Your task to perform on an android device: open app "Viber Messenger" (install if not already installed) Image 0: 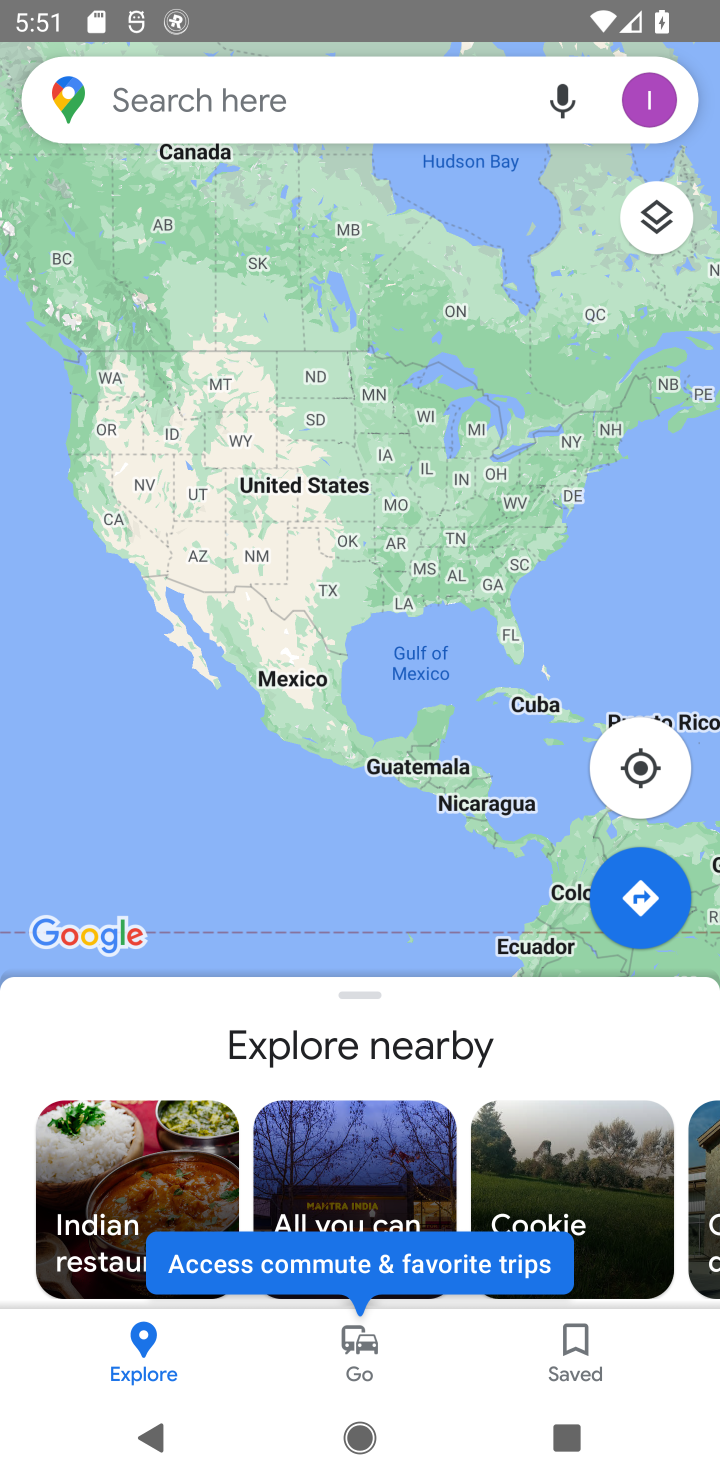
Step 0: press home button
Your task to perform on an android device: open app "Viber Messenger" (install if not already installed) Image 1: 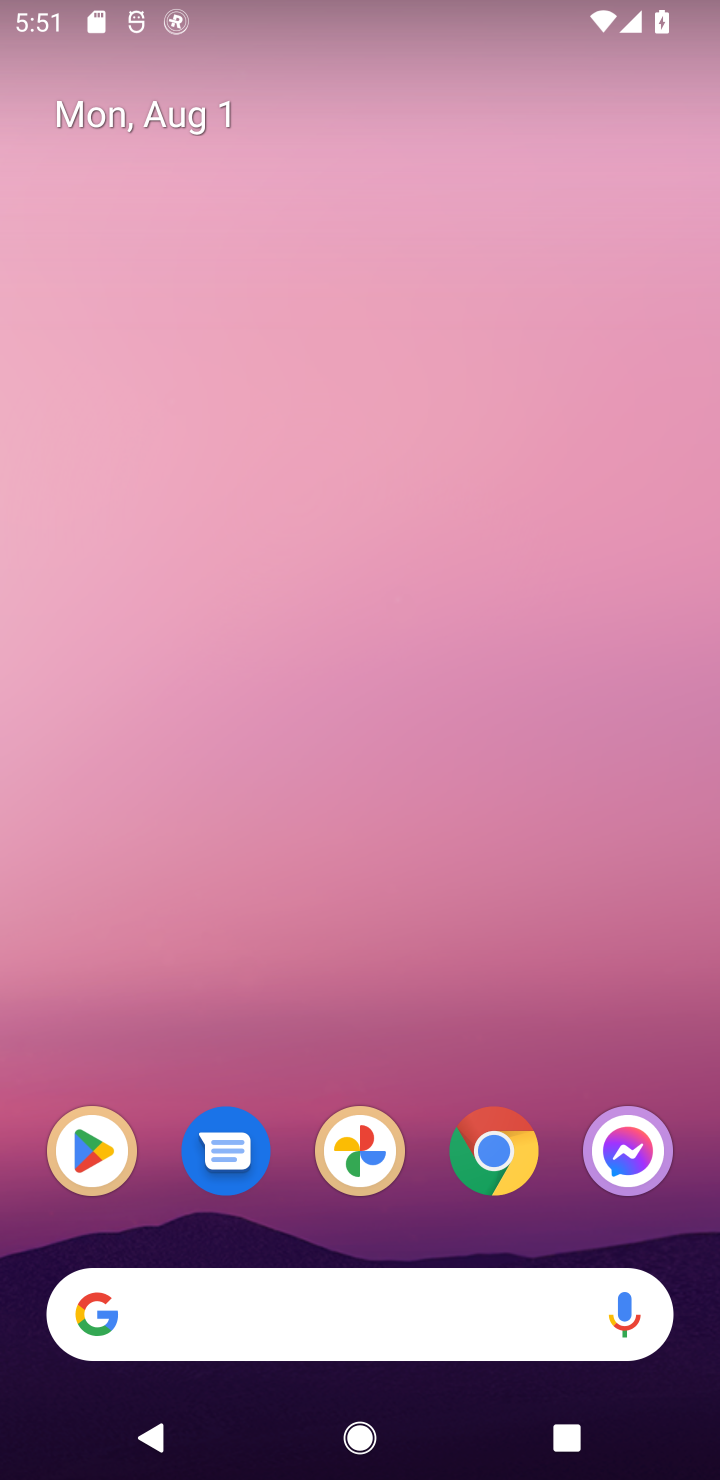
Step 1: click (101, 1139)
Your task to perform on an android device: open app "Viber Messenger" (install if not already installed) Image 2: 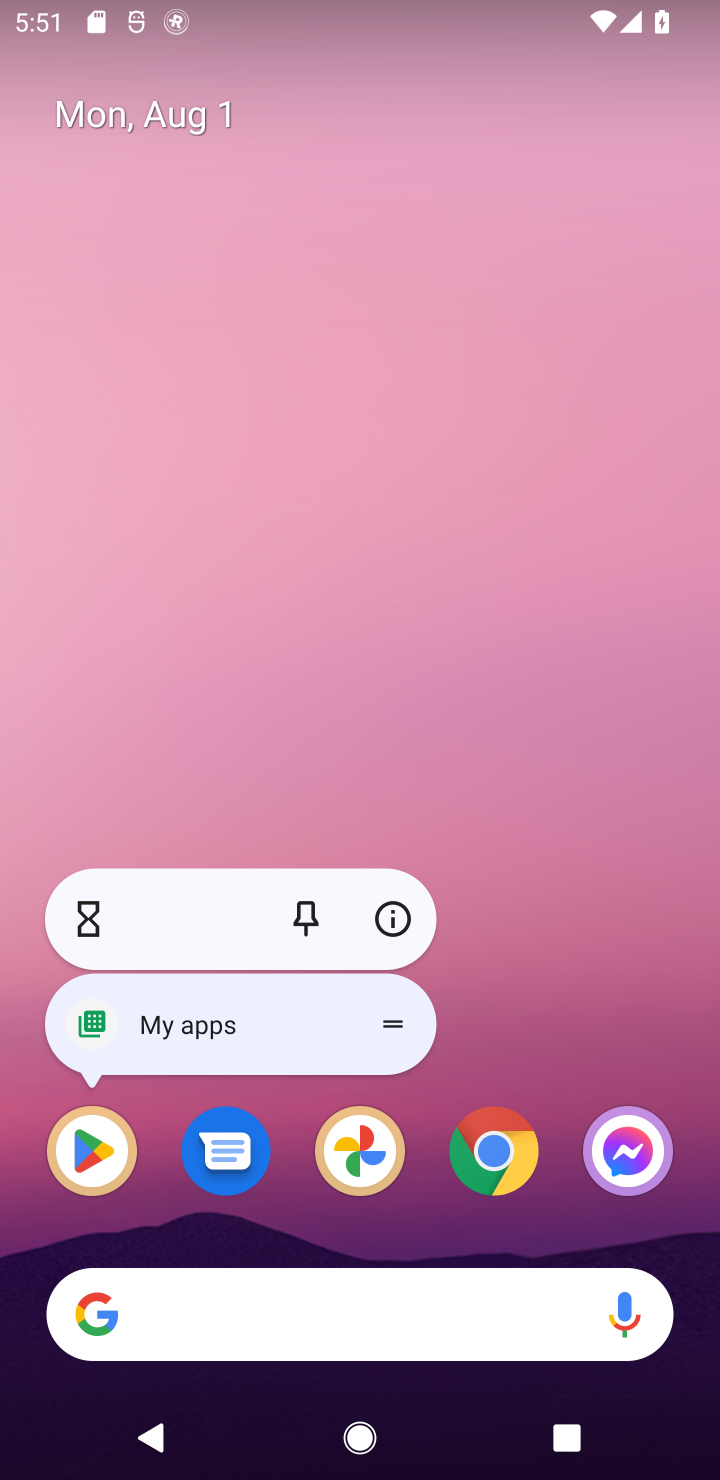
Step 2: click (96, 1154)
Your task to perform on an android device: open app "Viber Messenger" (install if not already installed) Image 3: 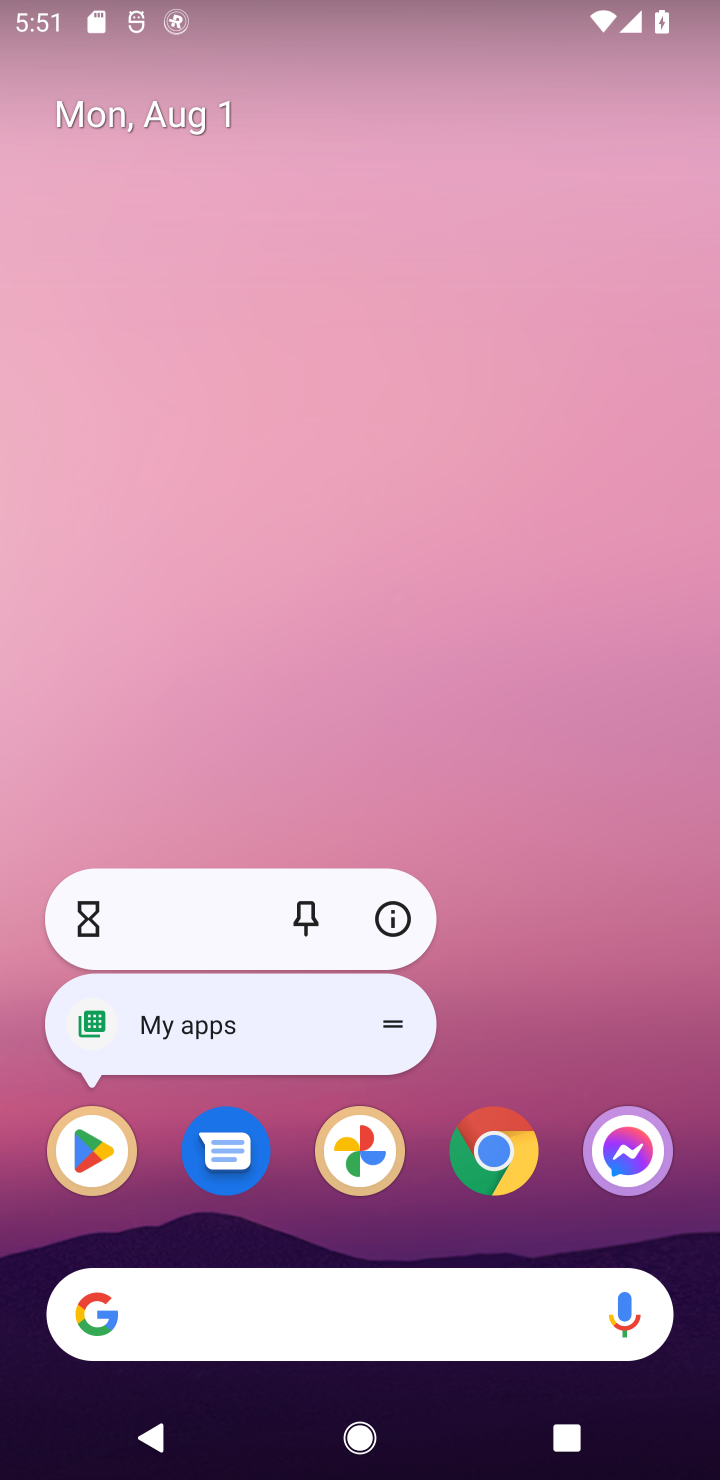
Step 3: click (96, 1154)
Your task to perform on an android device: open app "Viber Messenger" (install if not already installed) Image 4: 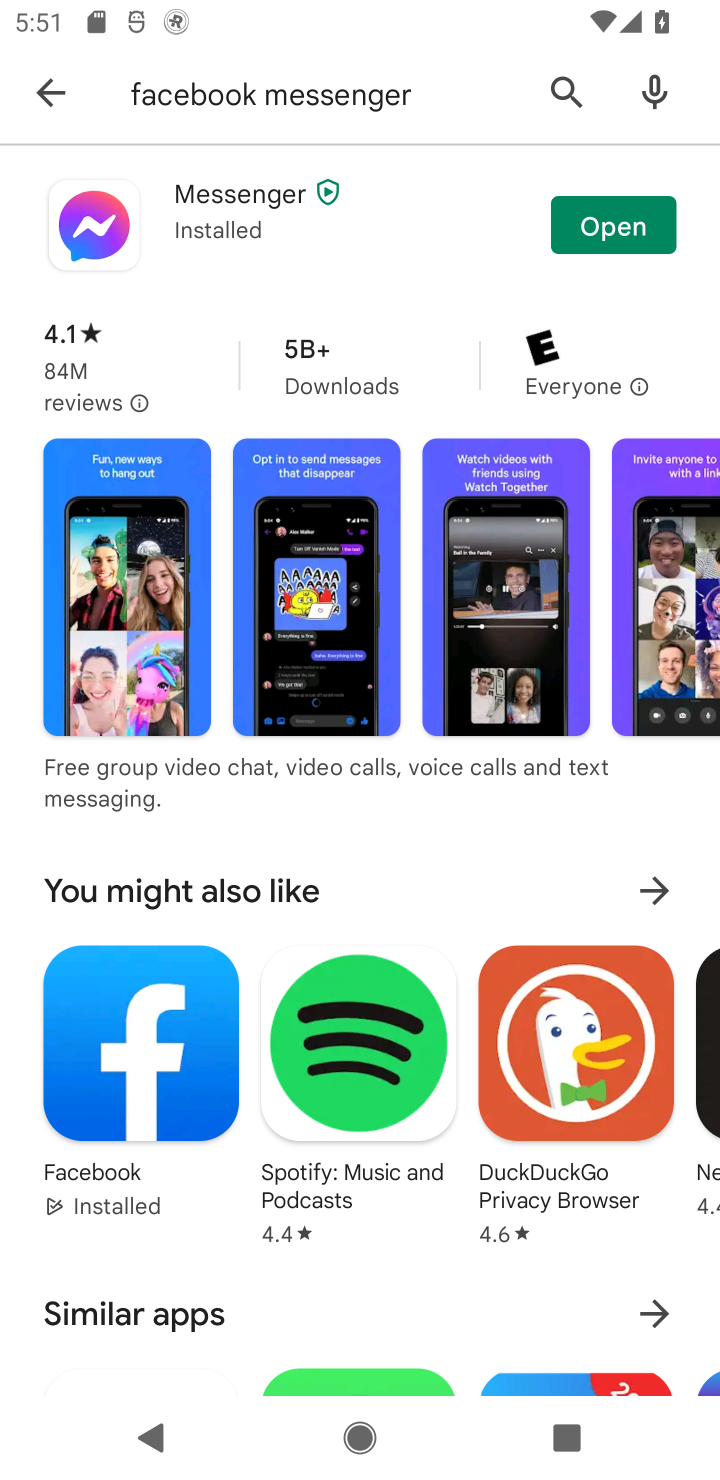
Step 4: click (574, 86)
Your task to perform on an android device: open app "Viber Messenger" (install if not already installed) Image 5: 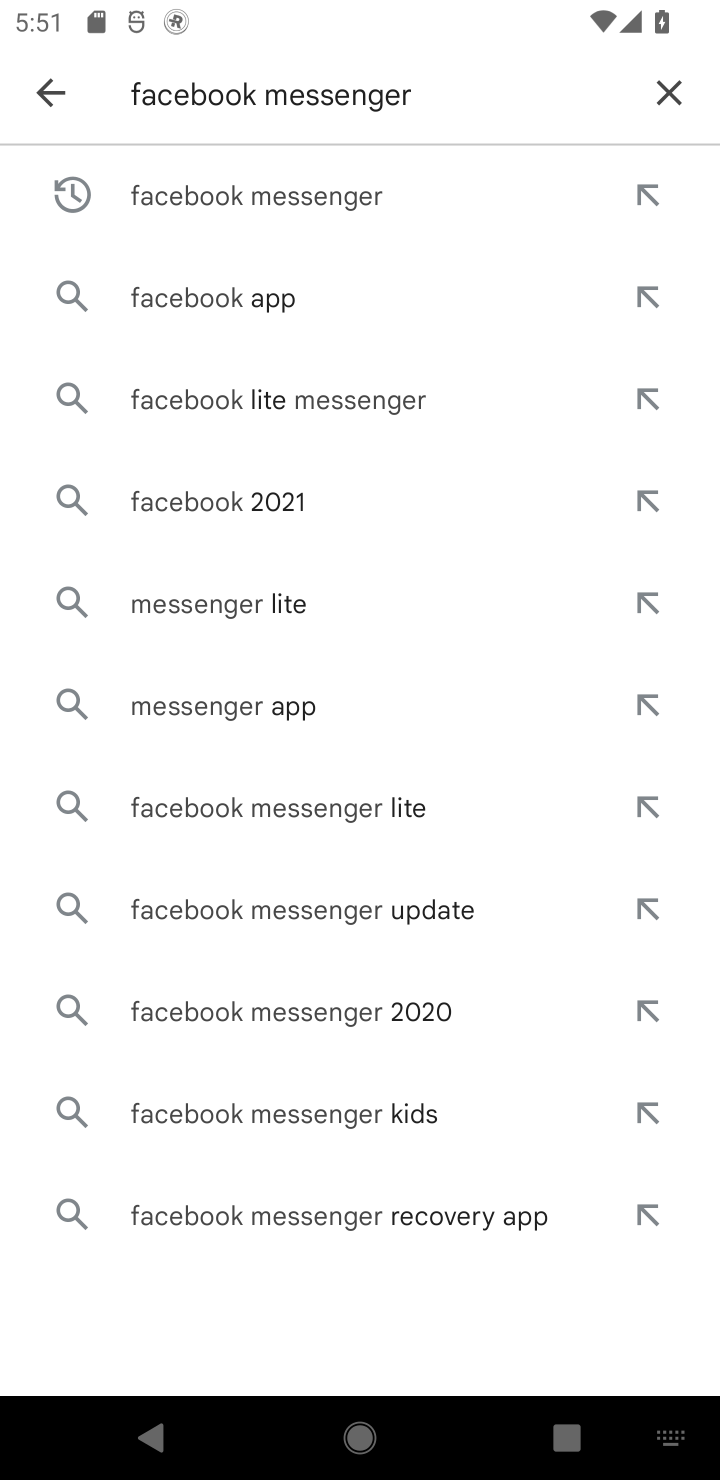
Step 5: click (666, 105)
Your task to perform on an android device: open app "Viber Messenger" (install if not already installed) Image 6: 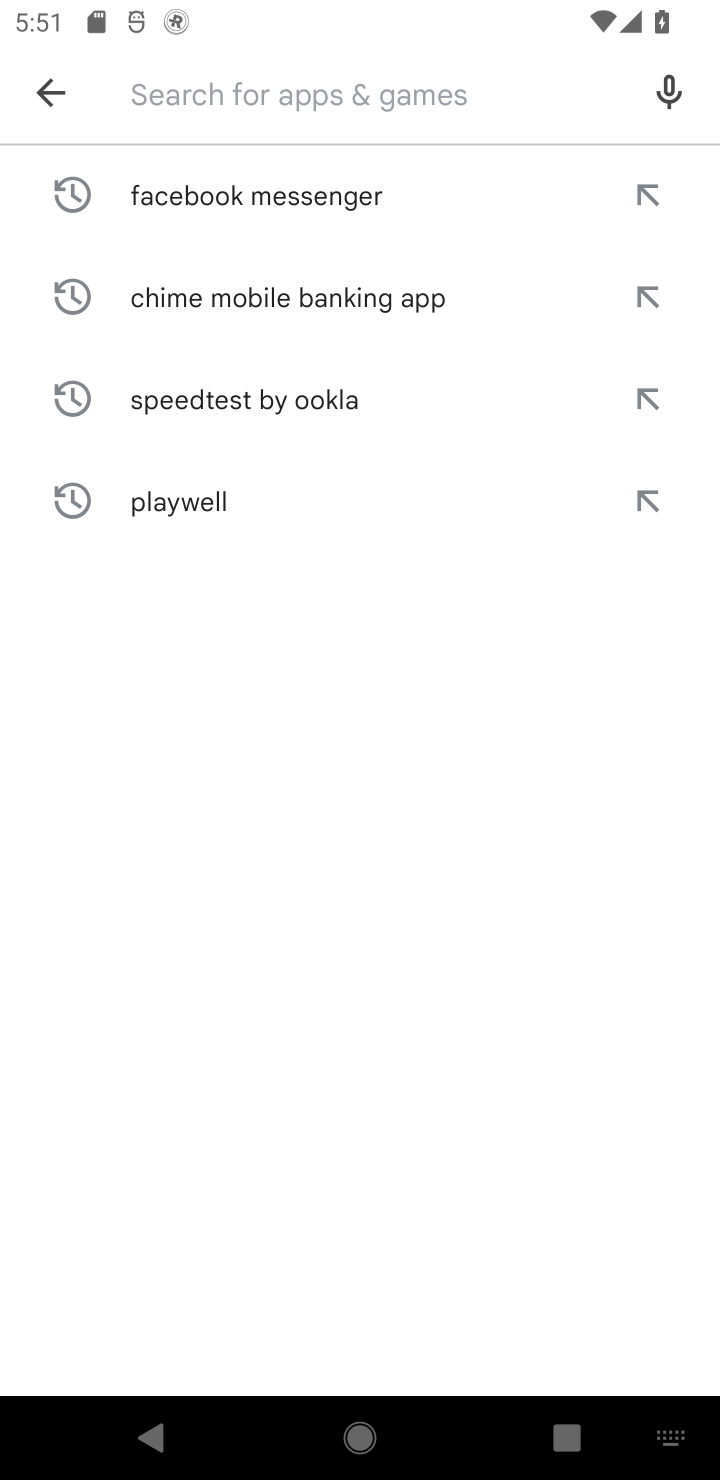
Step 6: type "Viber Messenger"
Your task to perform on an android device: open app "Viber Messenger" (install if not already installed) Image 7: 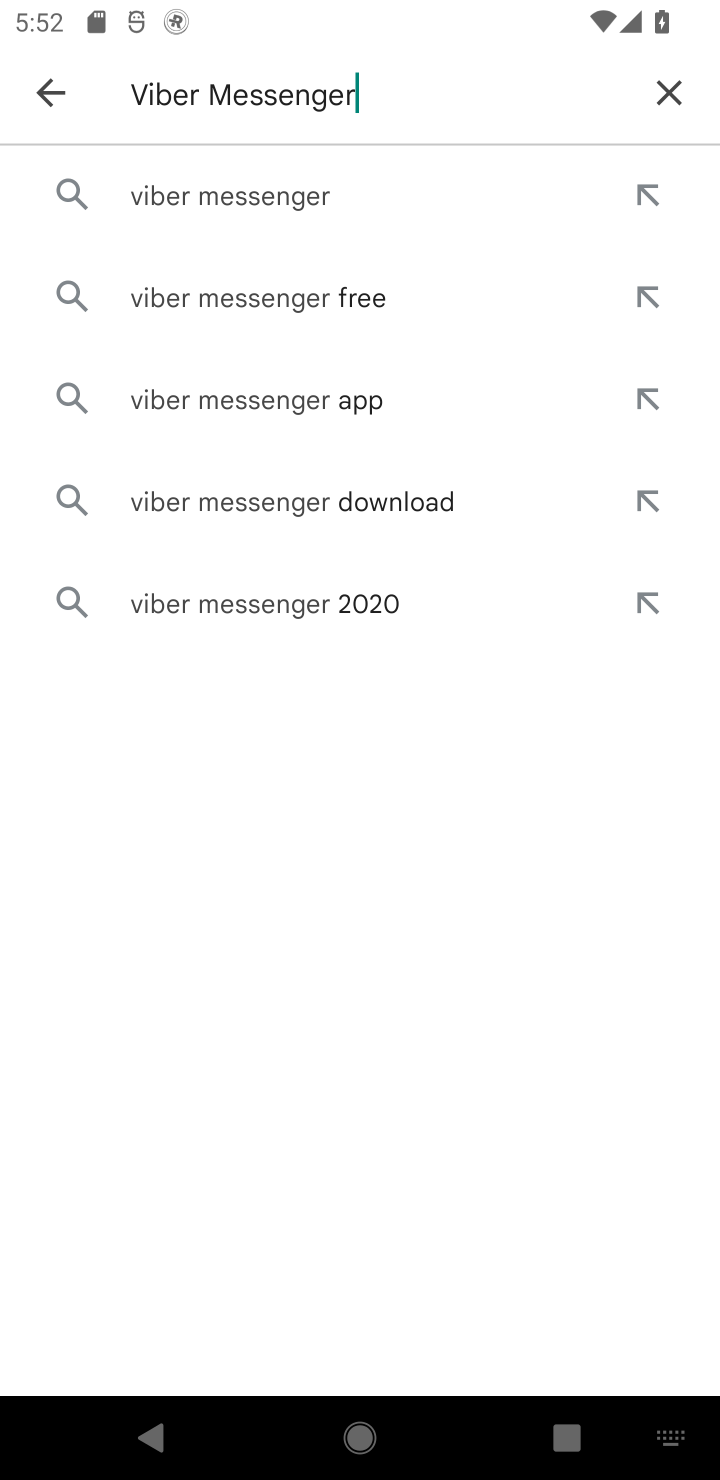
Step 7: click (296, 210)
Your task to perform on an android device: open app "Viber Messenger" (install if not already installed) Image 8: 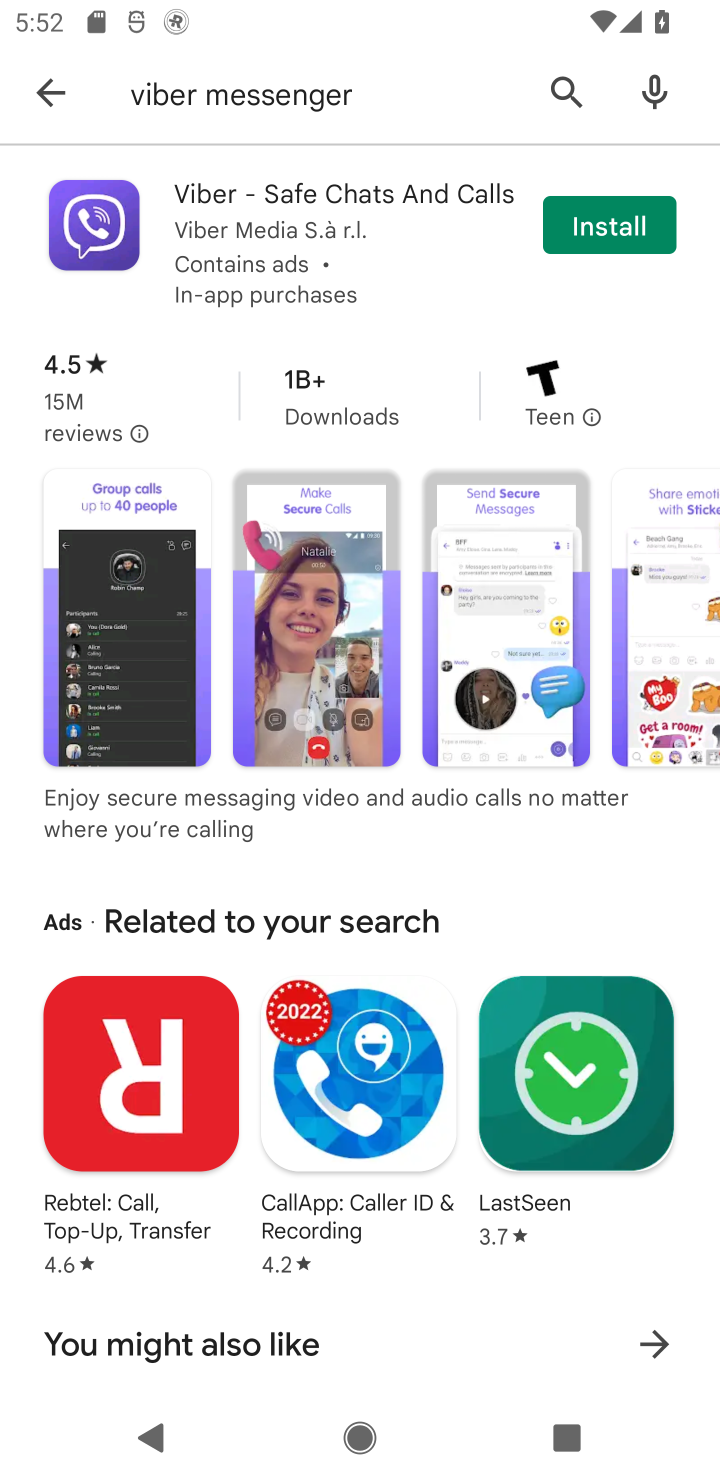
Step 8: click (596, 227)
Your task to perform on an android device: open app "Viber Messenger" (install if not already installed) Image 9: 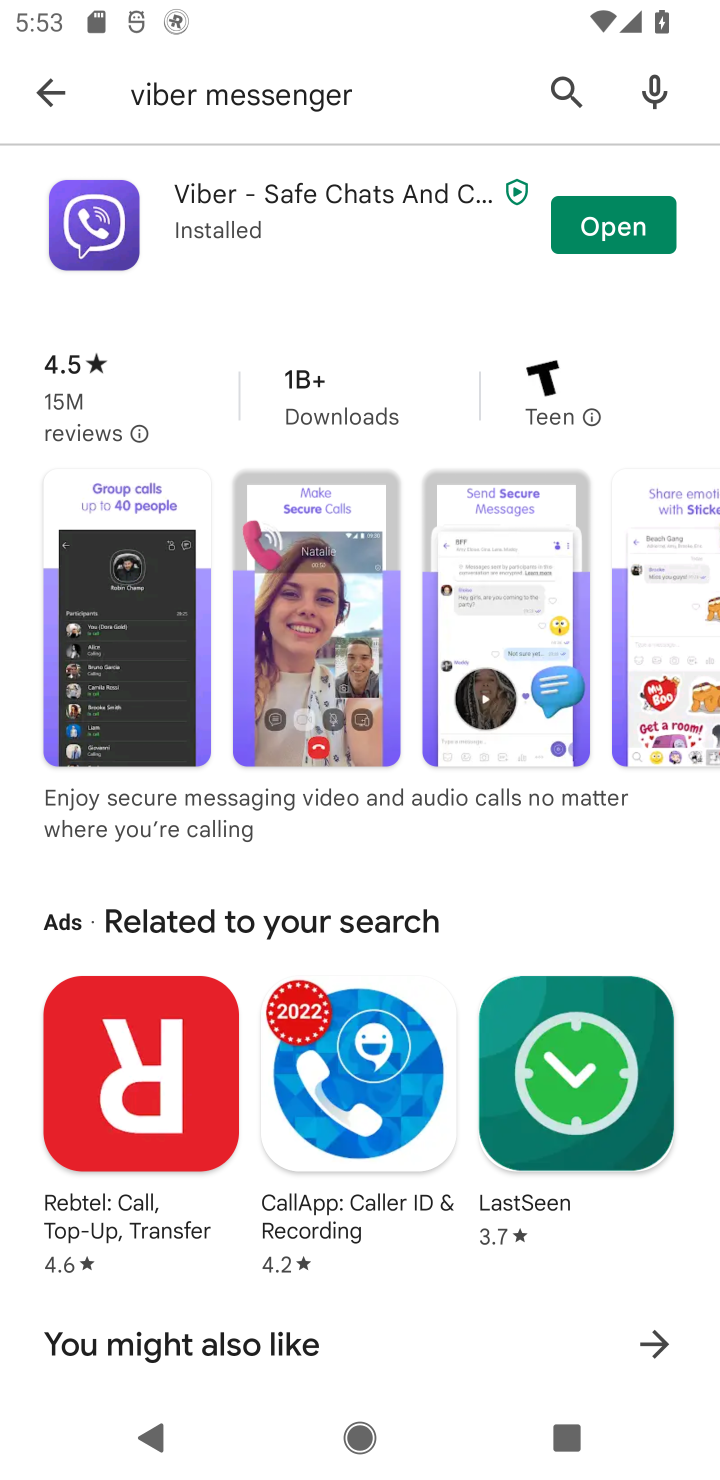
Step 9: click (573, 235)
Your task to perform on an android device: open app "Viber Messenger" (install if not already installed) Image 10: 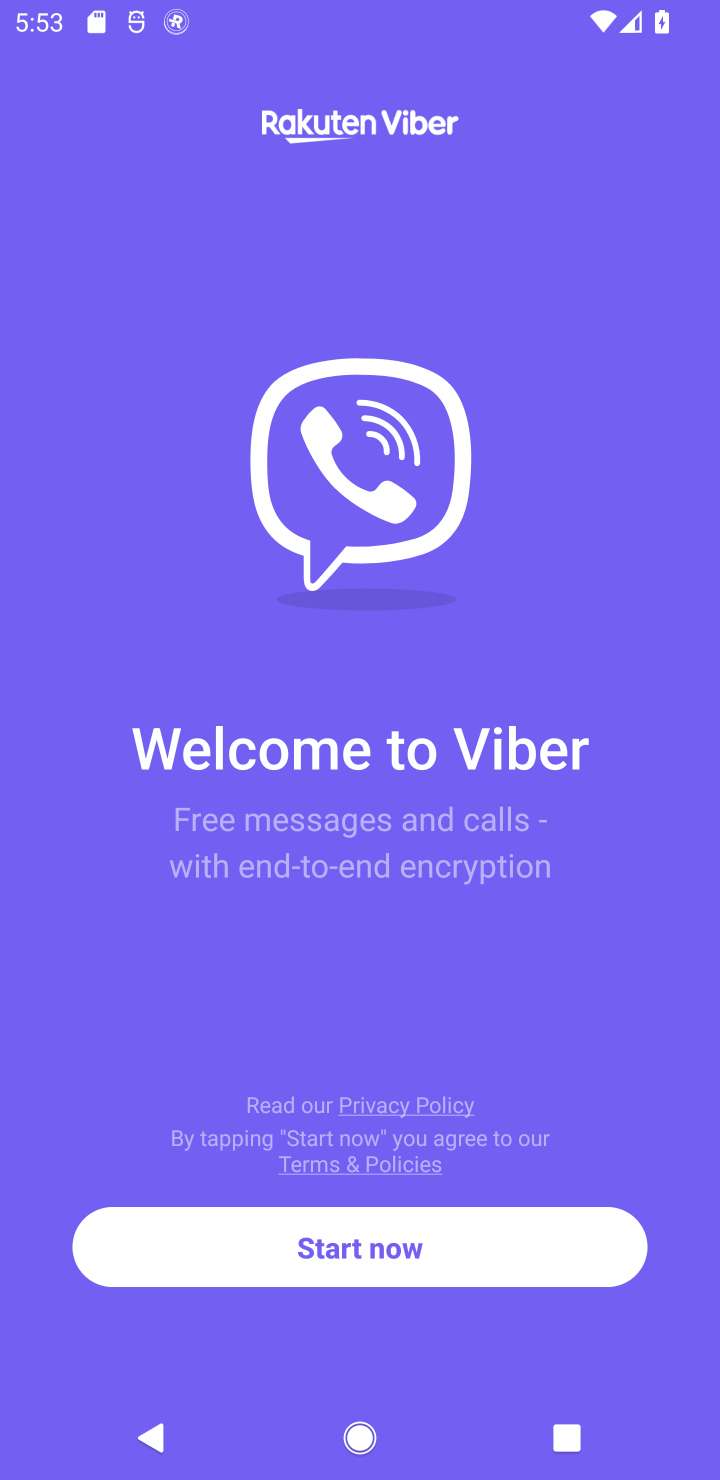
Step 10: task complete